Your task to perform on an android device: check data usage Image 0: 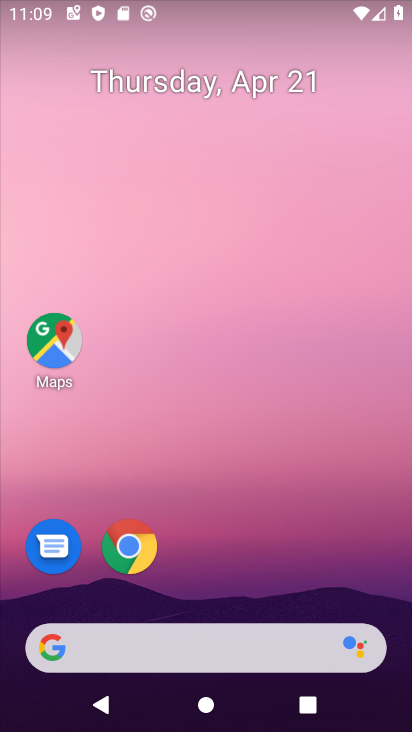
Step 0: drag from (259, 431) to (272, 78)
Your task to perform on an android device: check data usage Image 1: 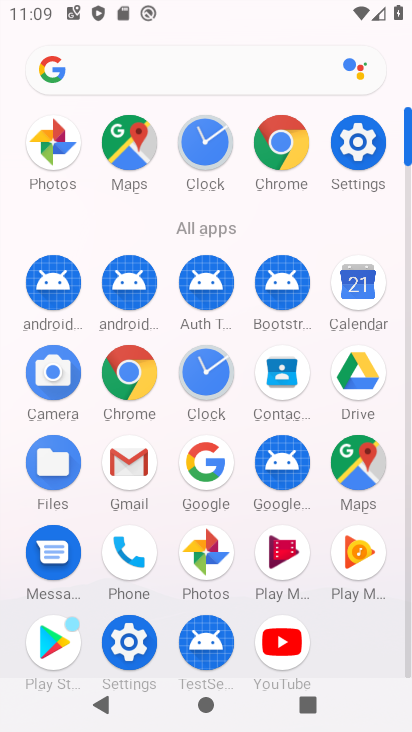
Step 1: click (350, 152)
Your task to perform on an android device: check data usage Image 2: 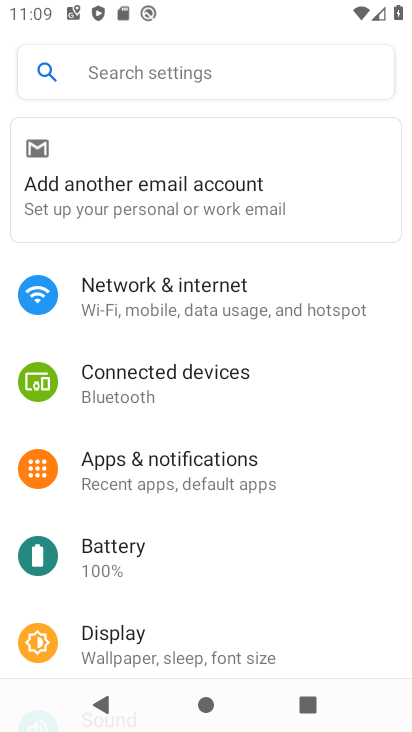
Step 2: click (162, 301)
Your task to perform on an android device: check data usage Image 3: 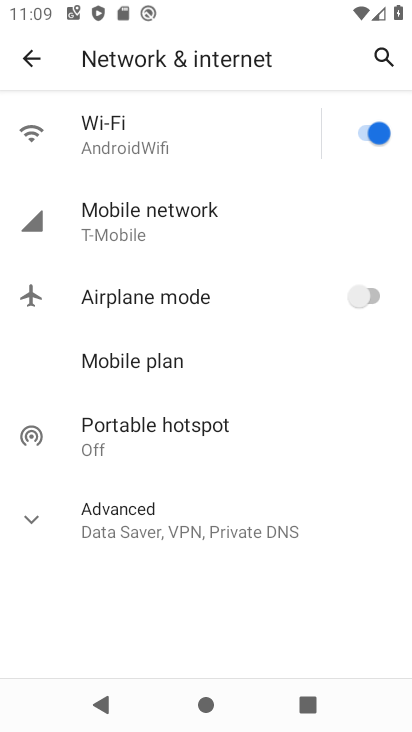
Step 3: click (137, 230)
Your task to perform on an android device: check data usage Image 4: 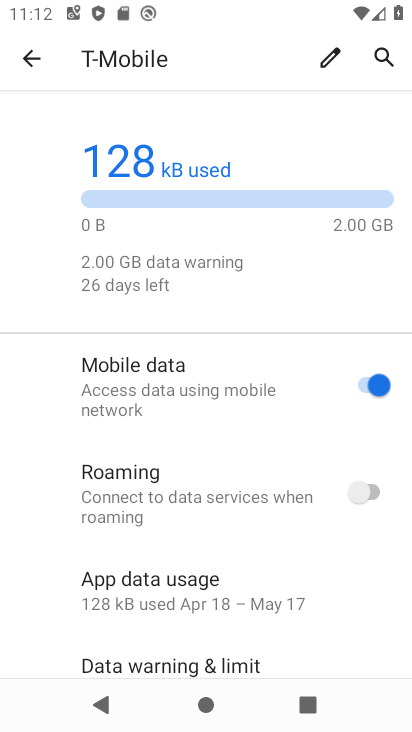
Step 4: task complete